Your task to perform on an android device: delete location history Image 0: 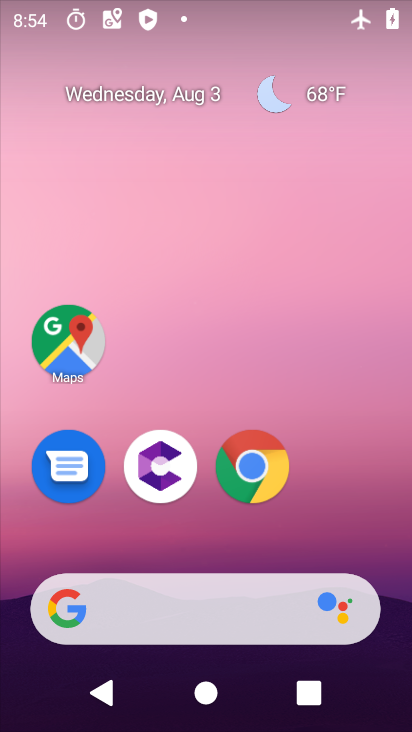
Step 0: drag from (336, 452) to (366, 52)
Your task to perform on an android device: delete location history Image 1: 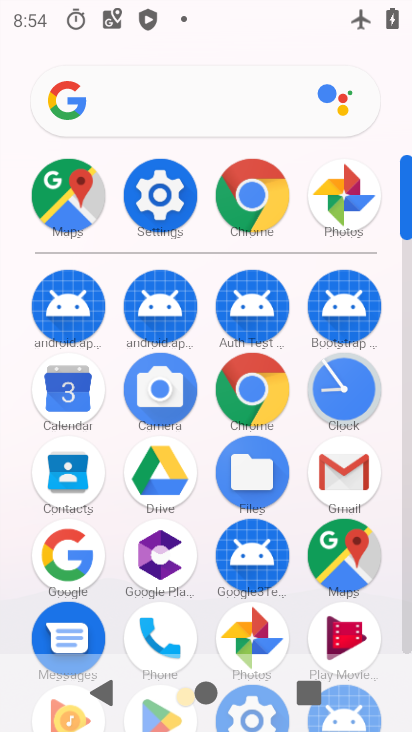
Step 1: click (80, 198)
Your task to perform on an android device: delete location history Image 2: 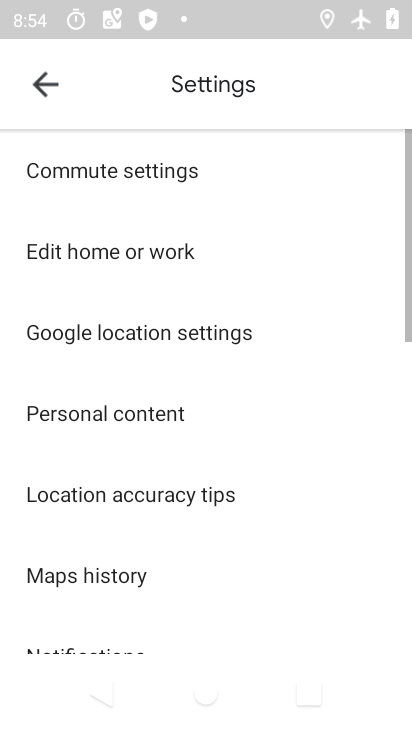
Step 2: click (47, 74)
Your task to perform on an android device: delete location history Image 3: 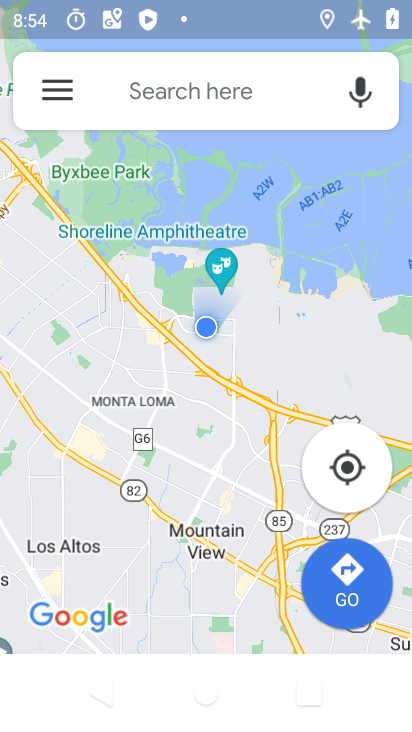
Step 3: click (47, 74)
Your task to perform on an android device: delete location history Image 4: 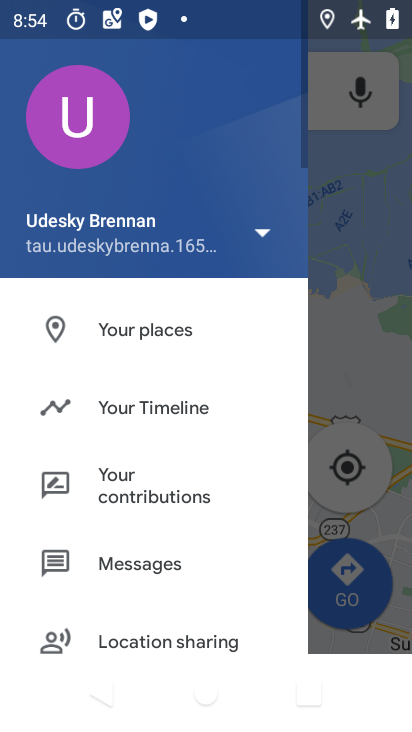
Step 4: drag from (163, 557) to (243, 164)
Your task to perform on an android device: delete location history Image 5: 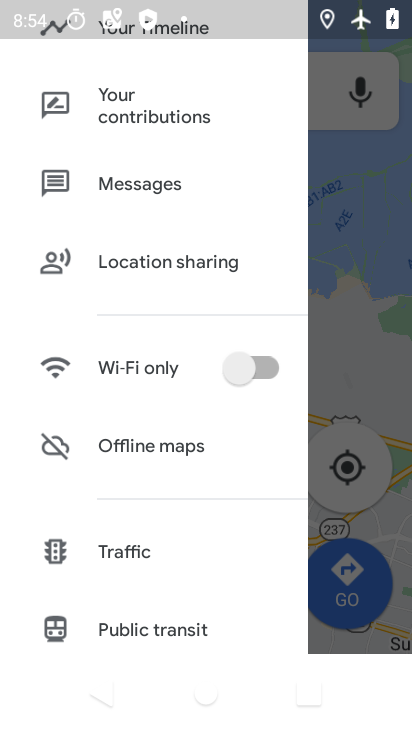
Step 5: drag from (145, 568) to (242, 211)
Your task to perform on an android device: delete location history Image 6: 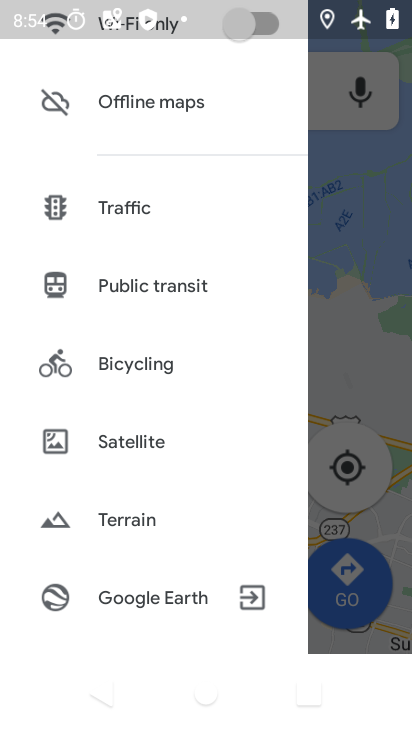
Step 6: drag from (120, 511) to (215, 169)
Your task to perform on an android device: delete location history Image 7: 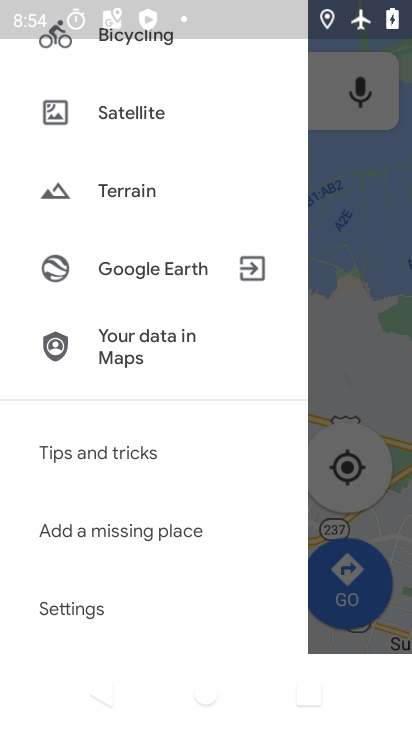
Step 7: click (77, 607)
Your task to perform on an android device: delete location history Image 8: 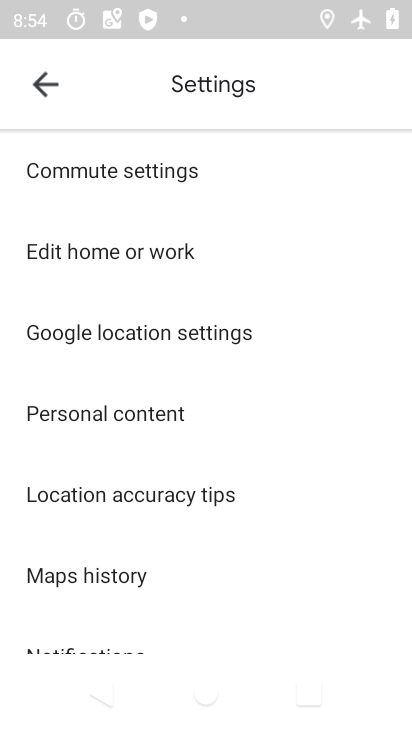
Step 8: click (122, 568)
Your task to perform on an android device: delete location history Image 9: 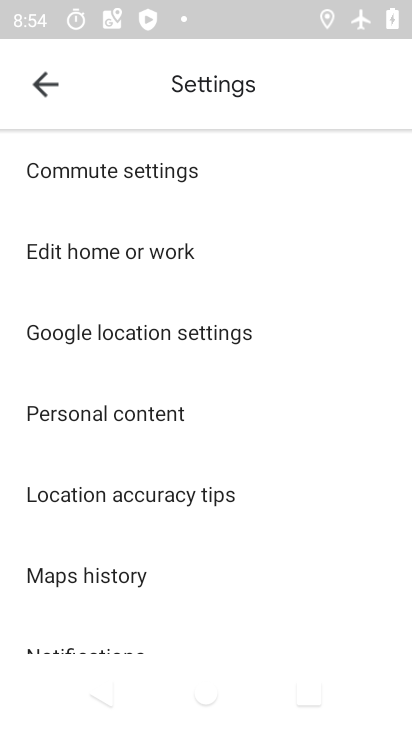
Step 9: task complete